Your task to perform on an android device: clear all cookies in the chrome app Image 0: 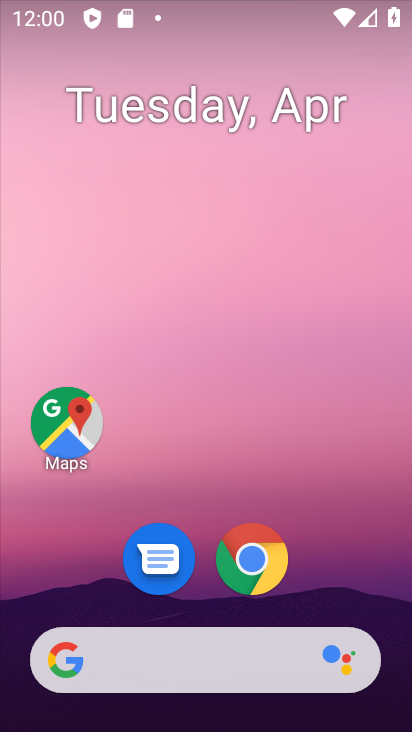
Step 0: drag from (390, 570) to (245, 209)
Your task to perform on an android device: clear all cookies in the chrome app Image 1: 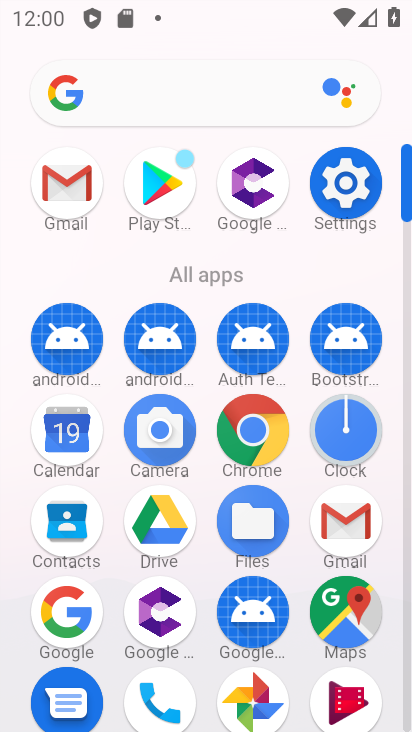
Step 1: click (256, 447)
Your task to perform on an android device: clear all cookies in the chrome app Image 2: 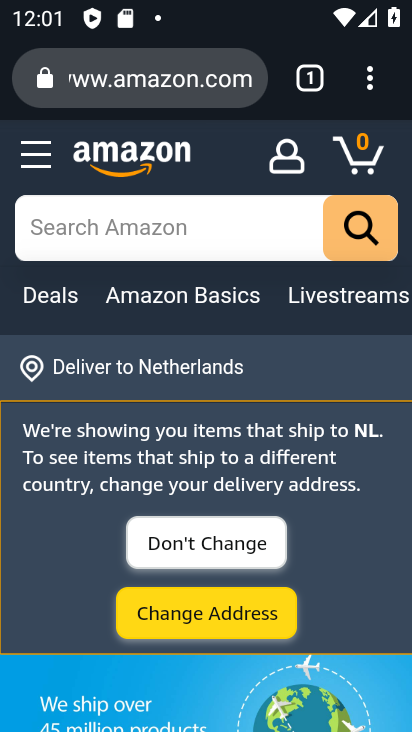
Step 2: drag from (370, 74) to (292, 430)
Your task to perform on an android device: clear all cookies in the chrome app Image 3: 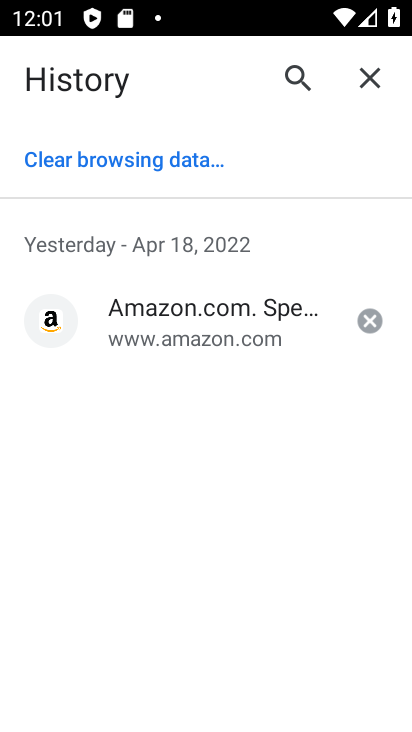
Step 3: click (187, 165)
Your task to perform on an android device: clear all cookies in the chrome app Image 4: 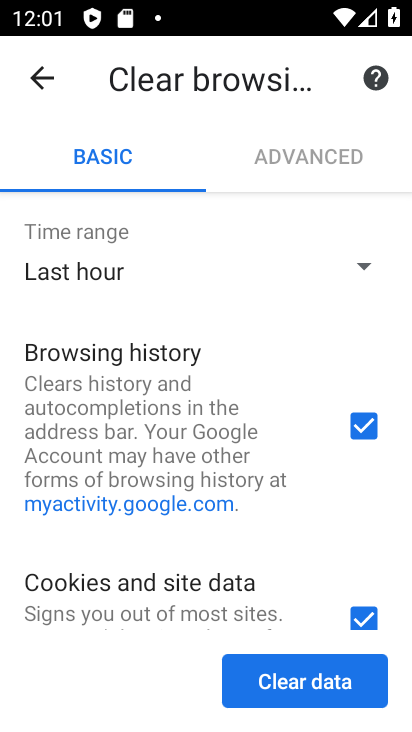
Step 4: click (355, 427)
Your task to perform on an android device: clear all cookies in the chrome app Image 5: 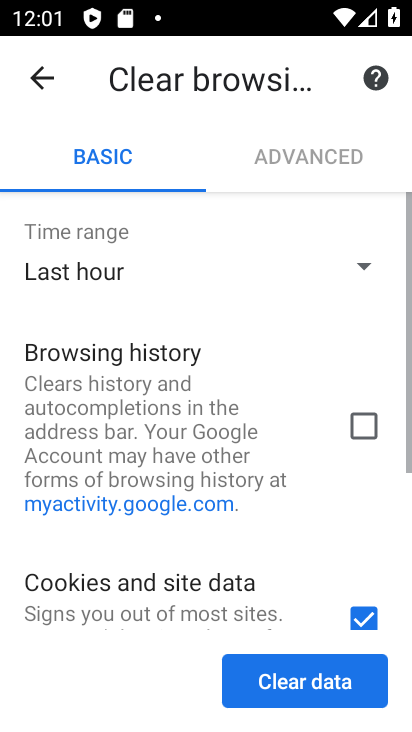
Step 5: drag from (366, 571) to (315, 252)
Your task to perform on an android device: clear all cookies in the chrome app Image 6: 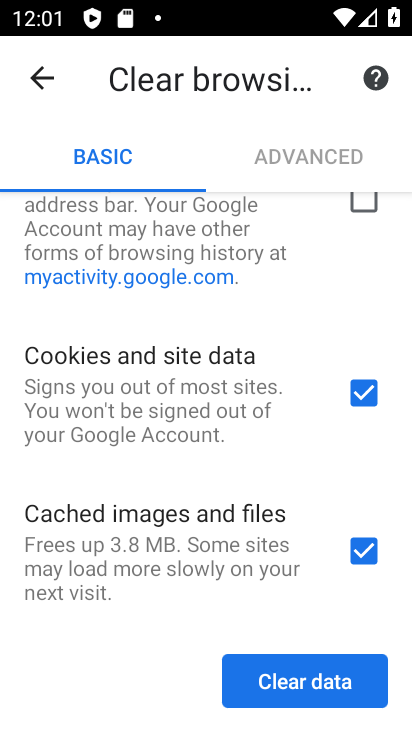
Step 6: click (354, 694)
Your task to perform on an android device: clear all cookies in the chrome app Image 7: 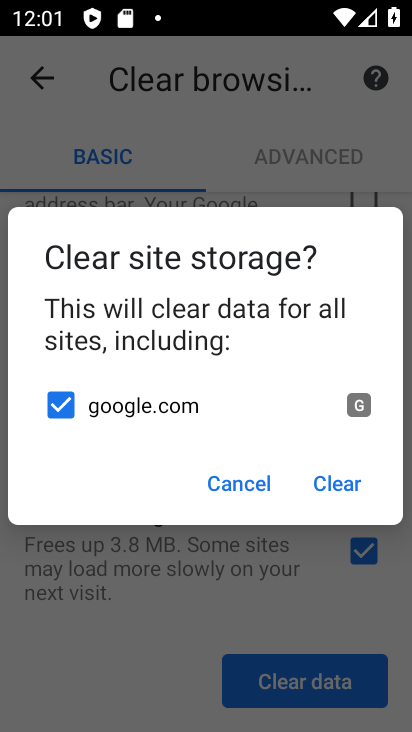
Step 7: click (327, 491)
Your task to perform on an android device: clear all cookies in the chrome app Image 8: 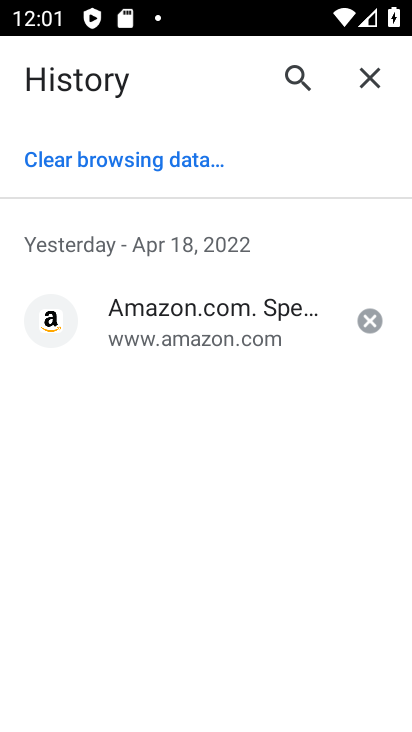
Step 8: task complete